Your task to perform on an android device: Turn off the flashlight Image 0: 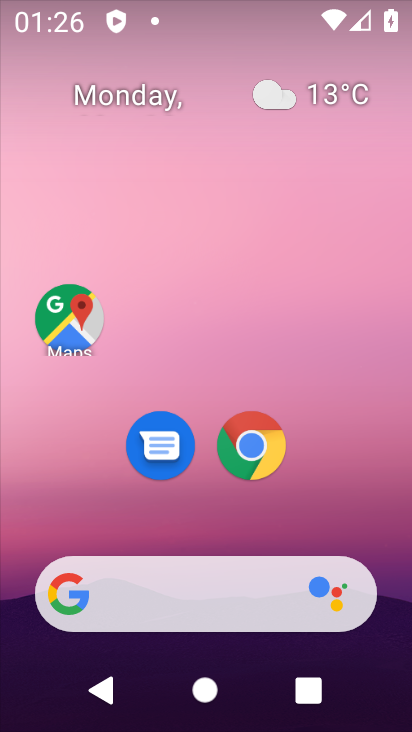
Step 0: drag from (289, 513) to (249, 7)
Your task to perform on an android device: Turn off the flashlight Image 1: 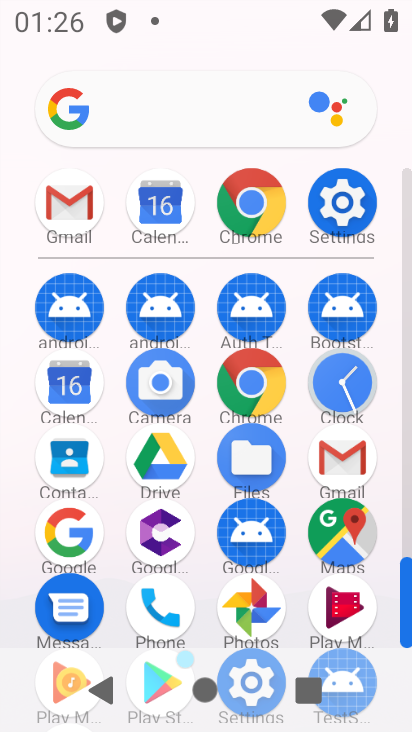
Step 1: click (334, 216)
Your task to perform on an android device: Turn off the flashlight Image 2: 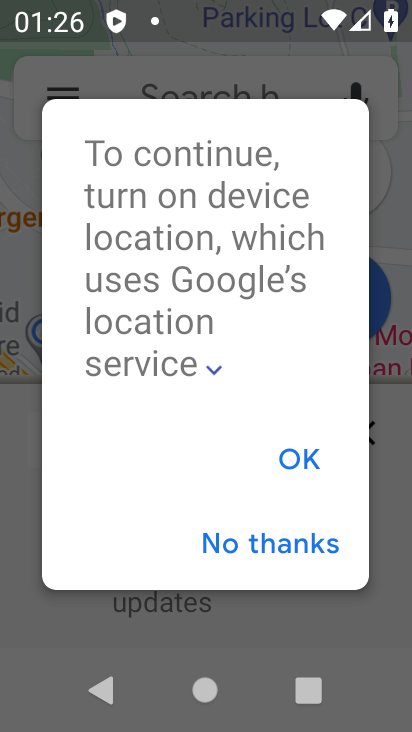
Step 2: click (279, 544)
Your task to perform on an android device: Turn off the flashlight Image 3: 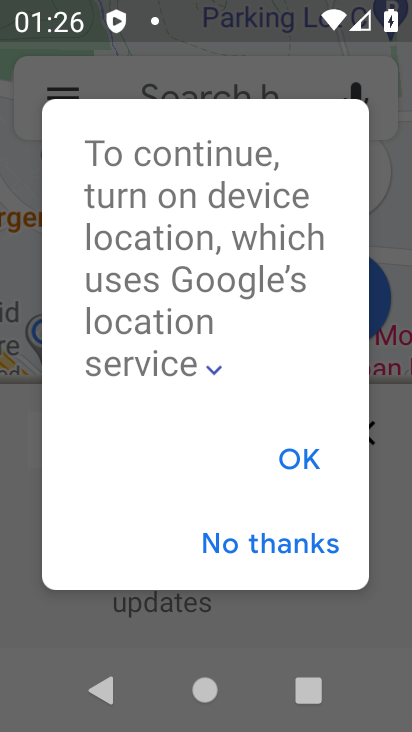
Step 3: click (263, 546)
Your task to perform on an android device: Turn off the flashlight Image 4: 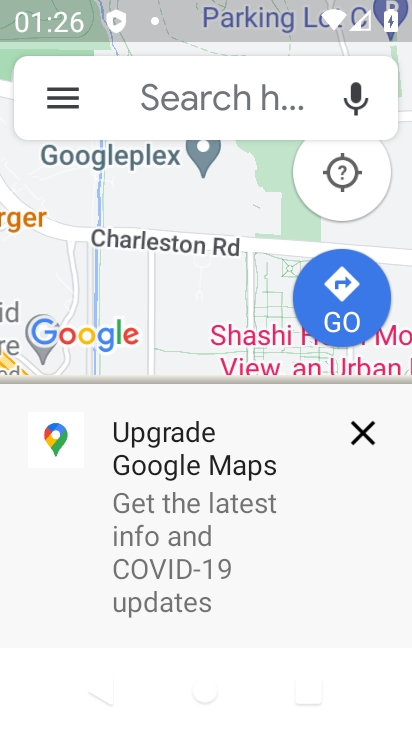
Step 4: press home button
Your task to perform on an android device: Turn off the flashlight Image 5: 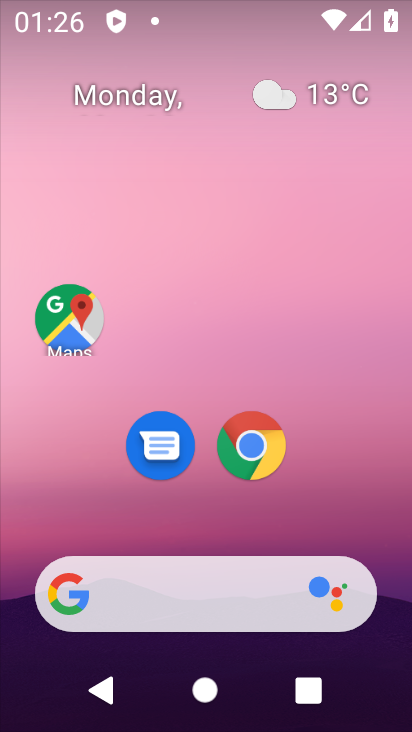
Step 5: drag from (239, 509) to (229, 1)
Your task to perform on an android device: Turn off the flashlight Image 6: 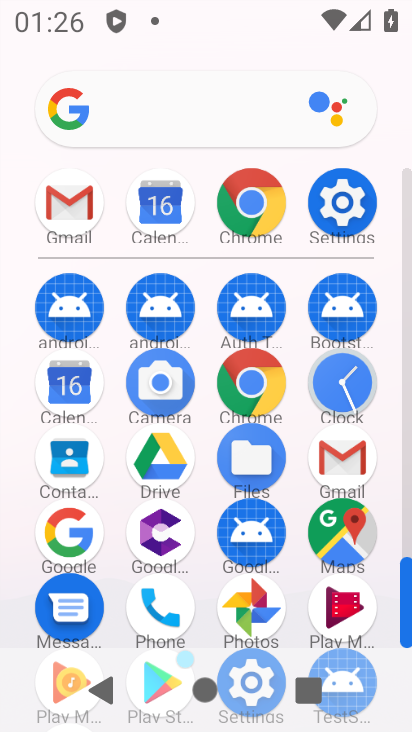
Step 6: click (348, 213)
Your task to perform on an android device: Turn off the flashlight Image 7: 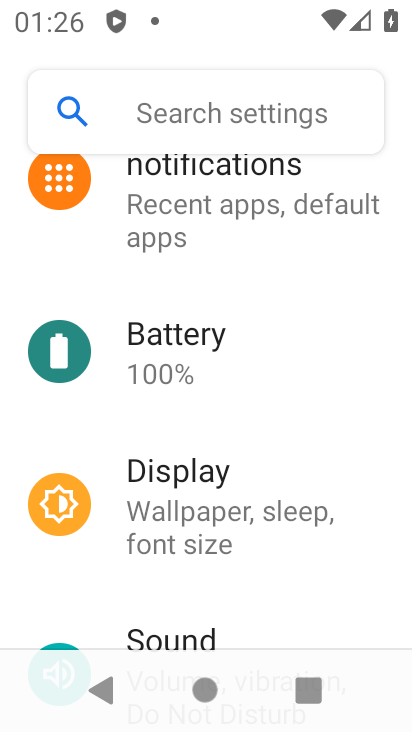
Step 7: task complete